Your task to perform on an android device: Open Google Maps and go to "Timeline" Image 0: 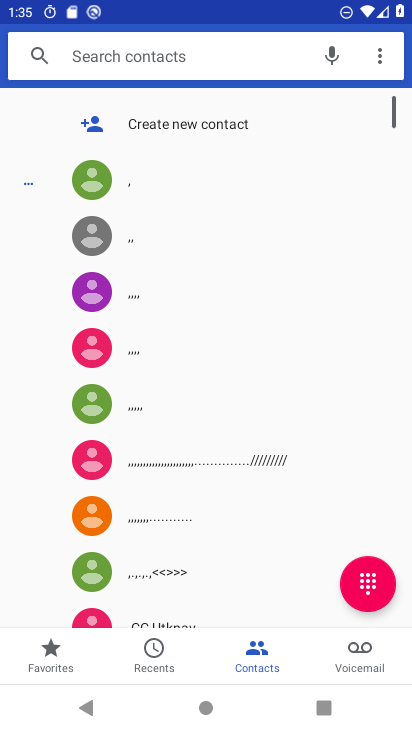
Step 0: press home button
Your task to perform on an android device: Open Google Maps and go to "Timeline" Image 1: 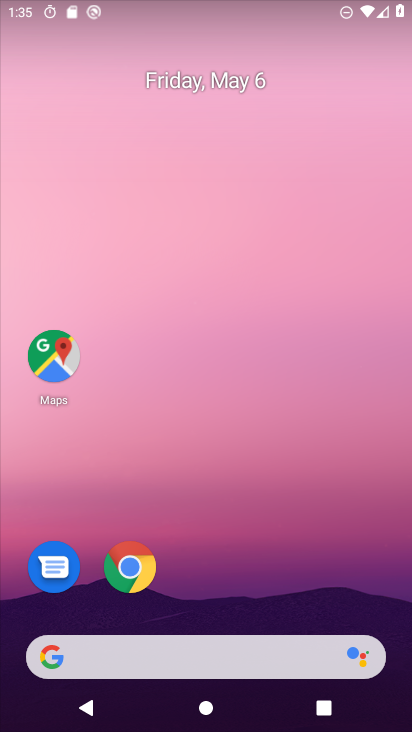
Step 1: drag from (282, 669) to (196, 232)
Your task to perform on an android device: Open Google Maps and go to "Timeline" Image 2: 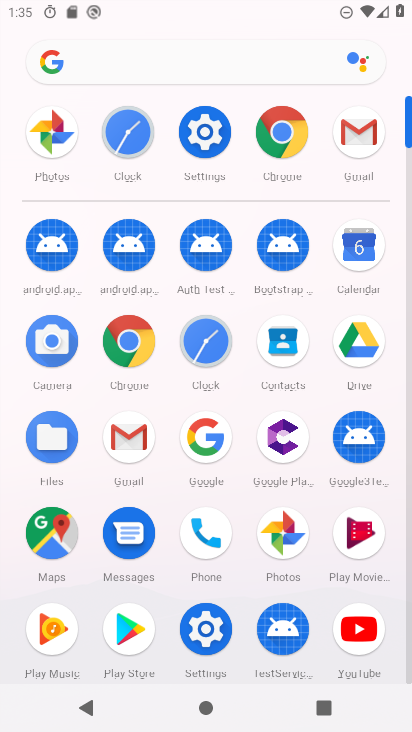
Step 2: click (206, 144)
Your task to perform on an android device: Open Google Maps and go to "Timeline" Image 3: 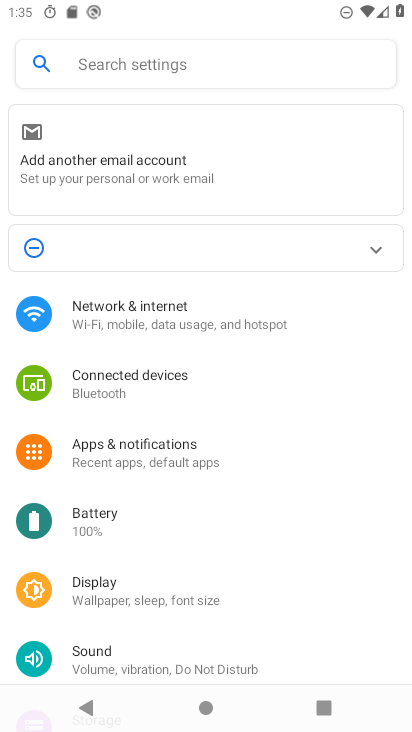
Step 3: press home button
Your task to perform on an android device: Open Google Maps and go to "Timeline" Image 4: 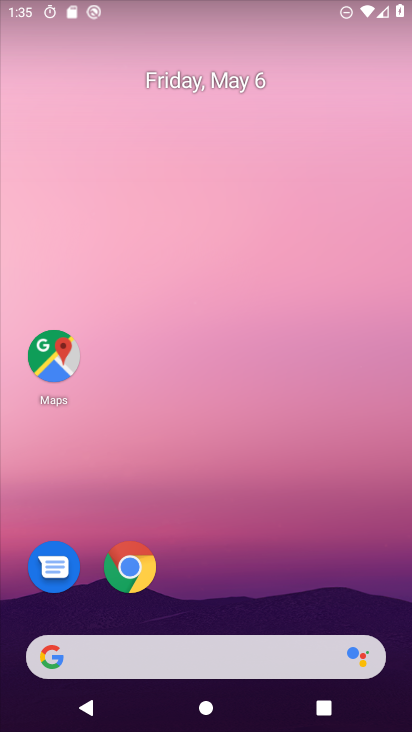
Step 4: click (57, 358)
Your task to perform on an android device: Open Google Maps and go to "Timeline" Image 5: 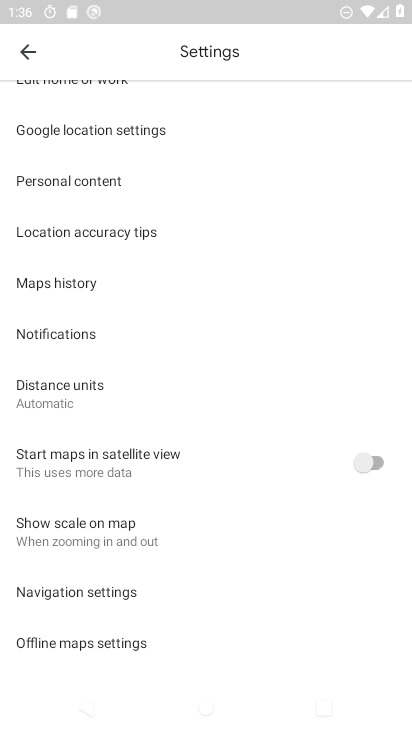
Step 5: click (32, 51)
Your task to perform on an android device: Open Google Maps and go to "Timeline" Image 6: 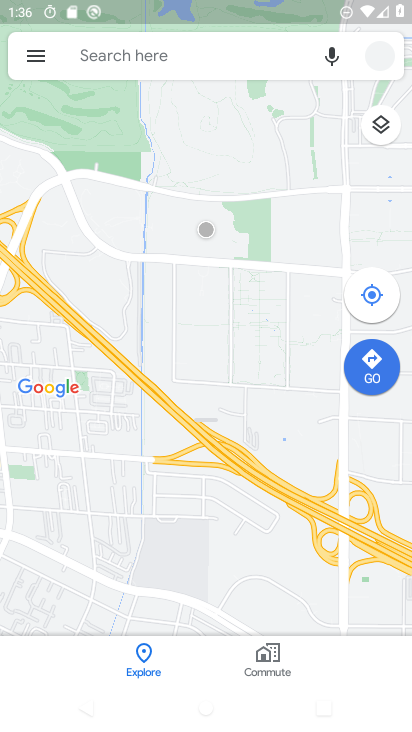
Step 6: click (33, 57)
Your task to perform on an android device: Open Google Maps and go to "Timeline" Image 7: 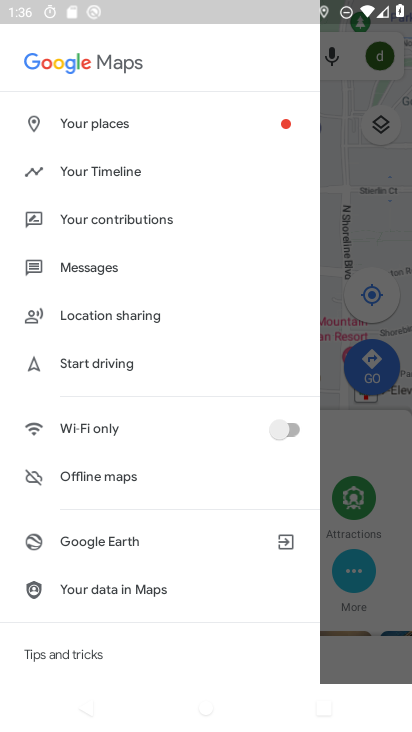
Step 7: click (65, 176)
Your task to perform on an android device: Open Google Maps and go to "Timeline" Image 8: 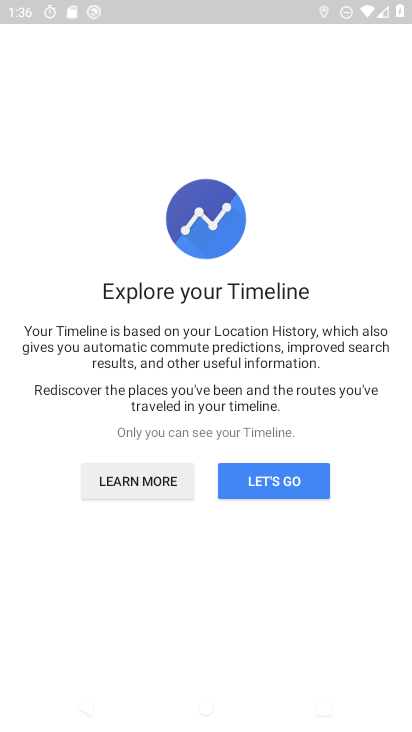
Step 8: click (252, 488)
Your task to perform on an android device: Open Google Maps and go to "Timeline" Image 9: 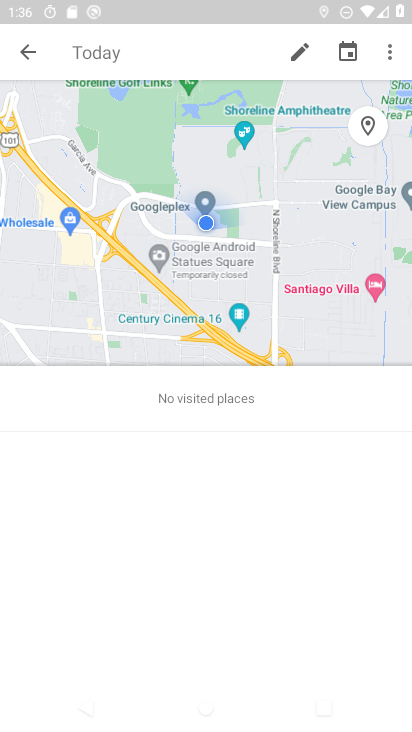
Step 9: task complete